Your task to perform on an android device: change the upload size in google photos Image 0: 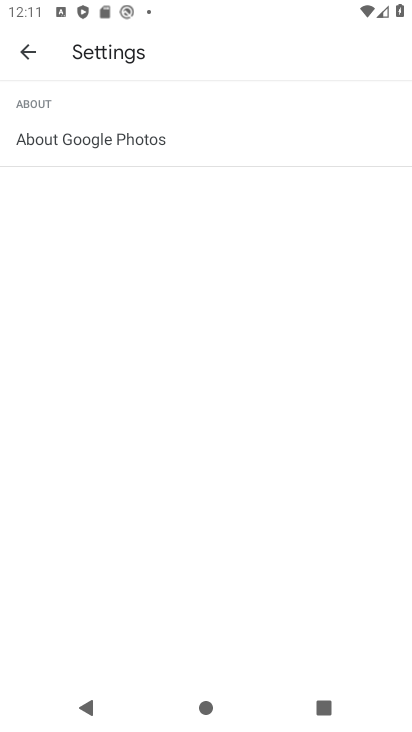
Step 0: click (27, 54)
Your task to perform on an android device: change the upload size in google photos Image 1: 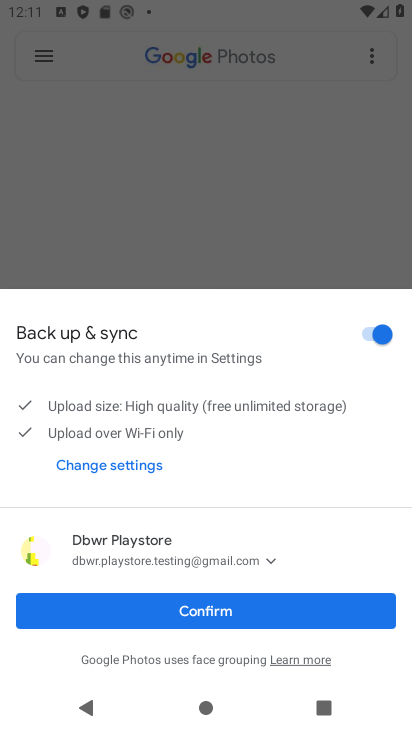
Step 1: click (372, 59)
Your task to perform on an android device: change the upload size in google photos Image 2: 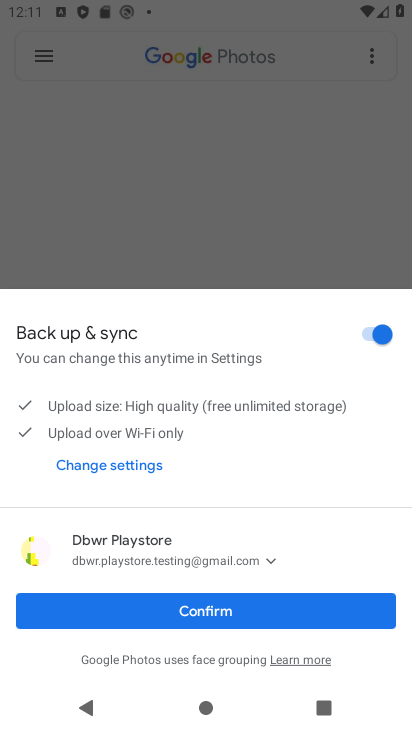
Step 2: click (253, 603)
Your task to perform on an android device: change the upload size in google photos Image 3: 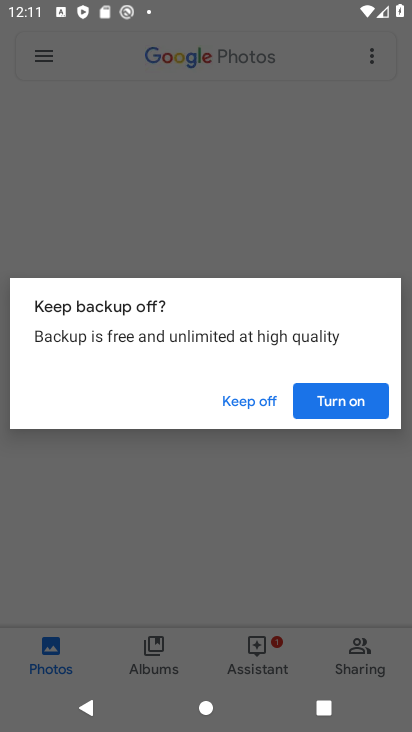
Step 3: click (321, 408)
Your task to perform on an android device: change the upload size in google photos Image 4: 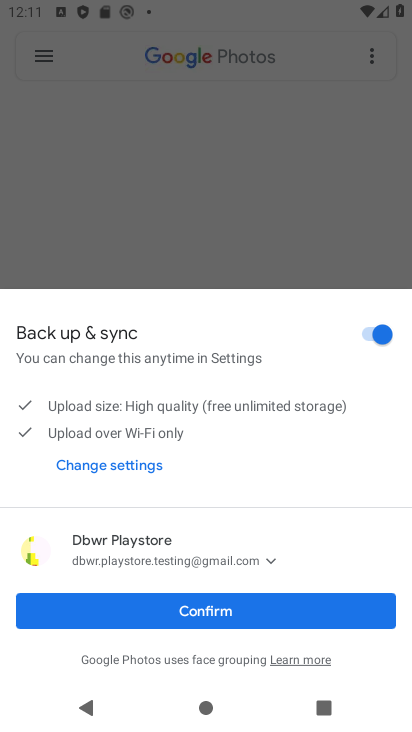
Step 4: click (232, 610)
Your task to perform on an android device: change the upload size in google photos Image 5: 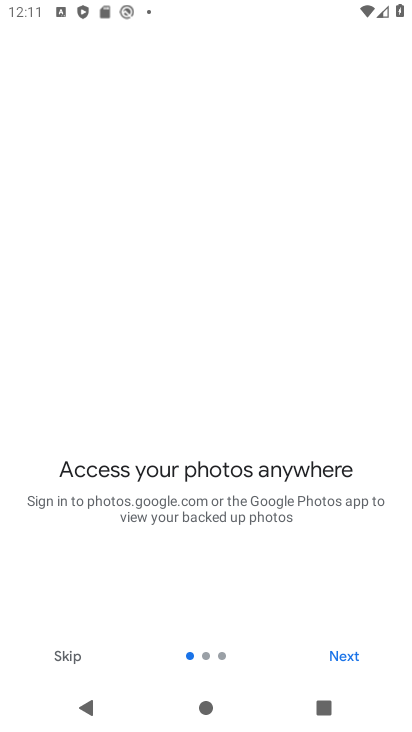
Step 5: click (340, 656)
Your task to perform on an android device: change the upload size in google photos Image 6: 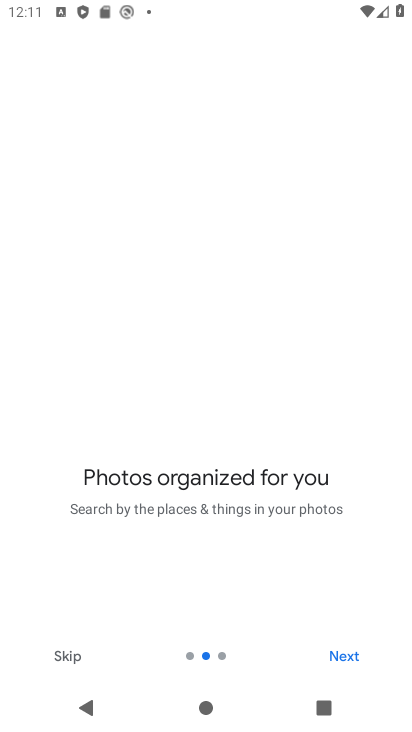
Step 6: click (340, 655)
Your task to perform on an android device: change the upload size in google photos Image 7: 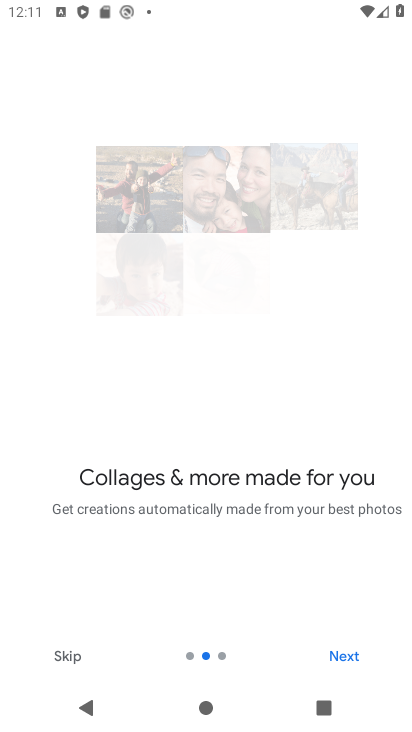
Step 7: click (340, 655)
Your task to perform on an android device: change the upload size in google photos Image 8: 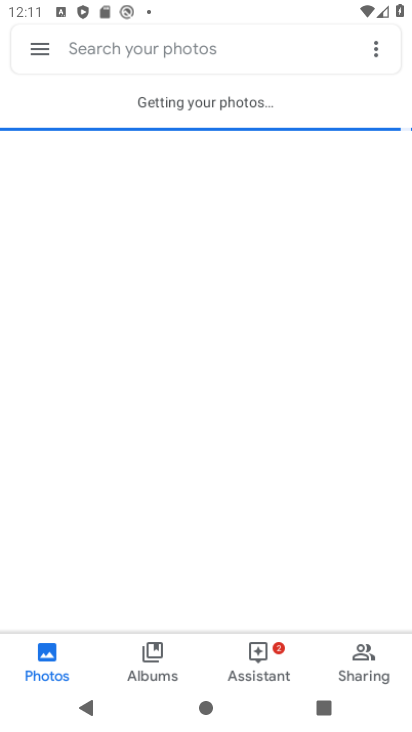
Step 8: click (335, 654)
Your task to perform on an android device: change the upload size in google photos Image 9: 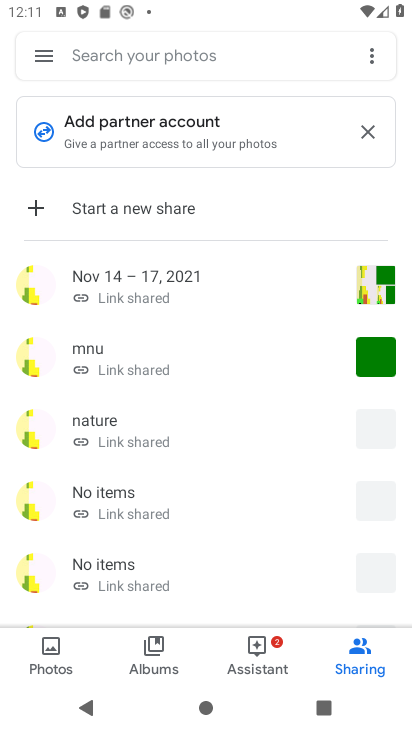
Step 9: click (47, 57)
Your task to perform on an android device: change the upload size in google photos Image 10: 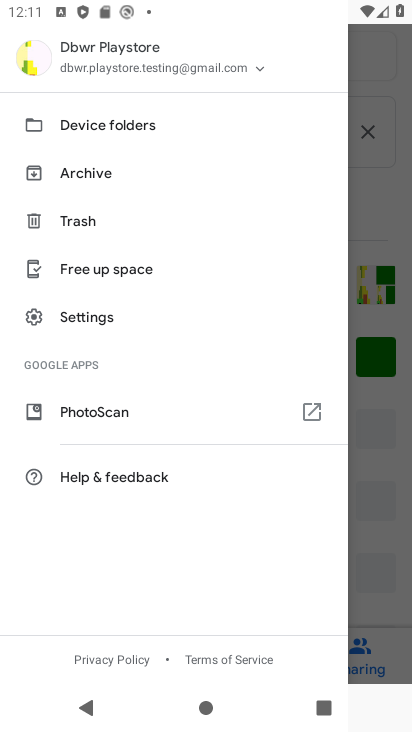
Step 10: click (127, 309)
Your task to perform on an android device: change the upload size in google photos Image 11: 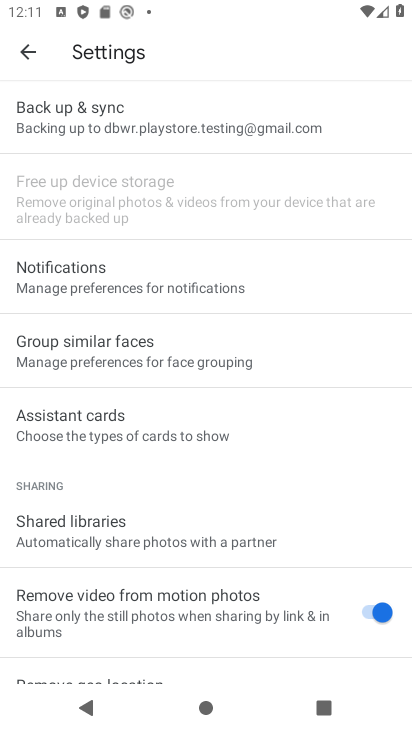
Step 11: drag from (160, 452) to (180, 202)
Your task to perform on an android device: change the upload size in google photos Image 12: 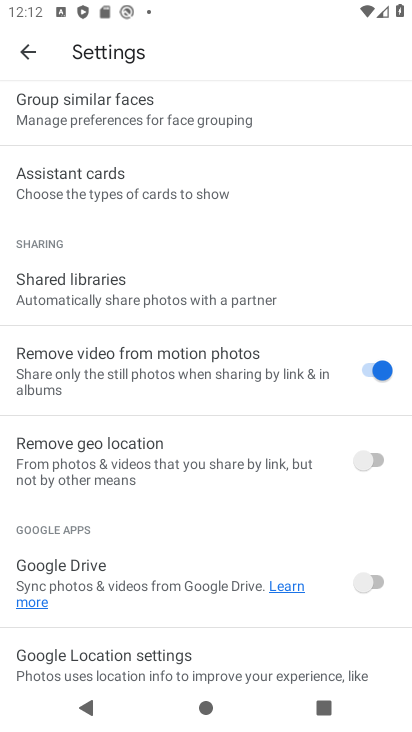
Step 12: drag from (168, 529) to (171, 290)
Your task to perform on an android device: change the upload size in google photos Image 13: 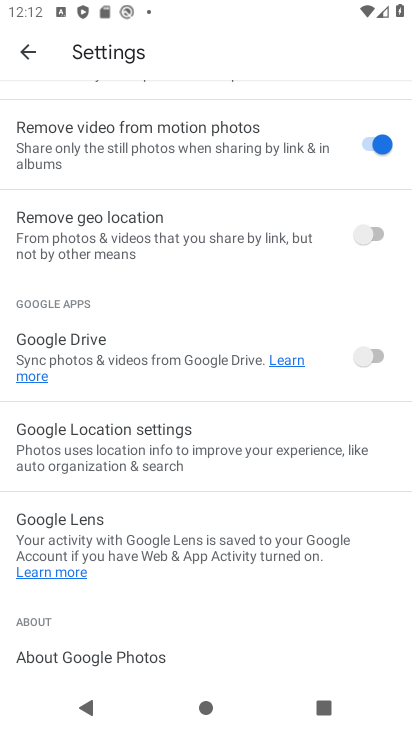
Step 13: drag from (211, 527) to (219, 150)
Your task to perform on an android device: change the upload size in google photos Image 14: 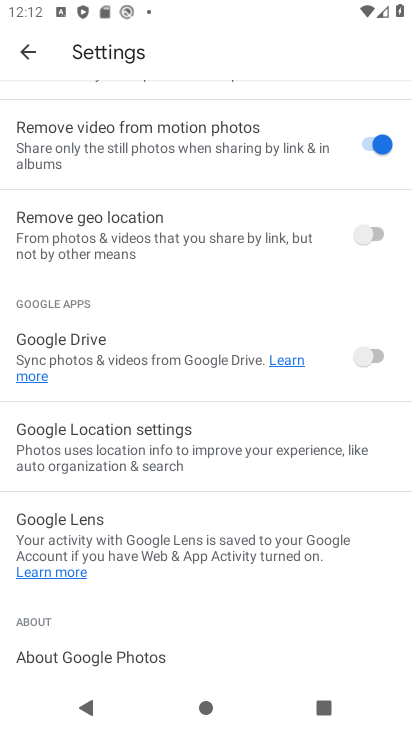
Step 14: drag from (173, 523) to (224, 213)
Your task to perform on an android device: change the upload size in google photos Image 15: 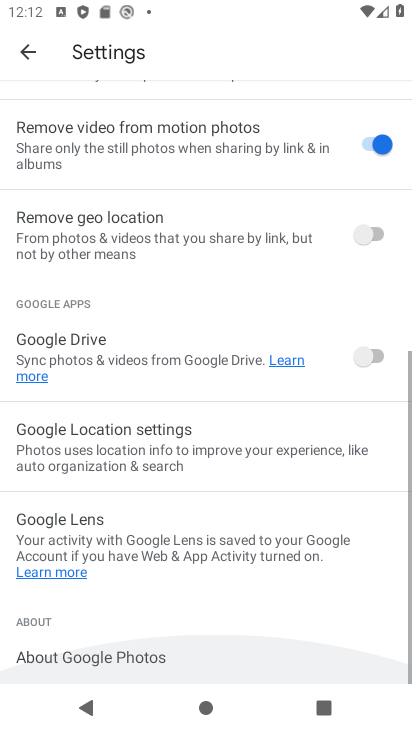
Step 15: drag from (226, 226) to (195, 513)
Your task to perform on an android device: change the upload size in google photos Image 16: 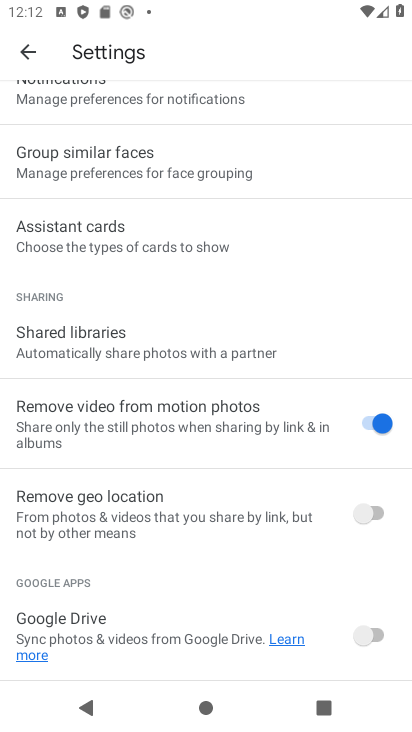
Step 16: drag from (208, 271) to (216, 580)
Your task to perform on an android device: change the upload size in google photos Image 17: 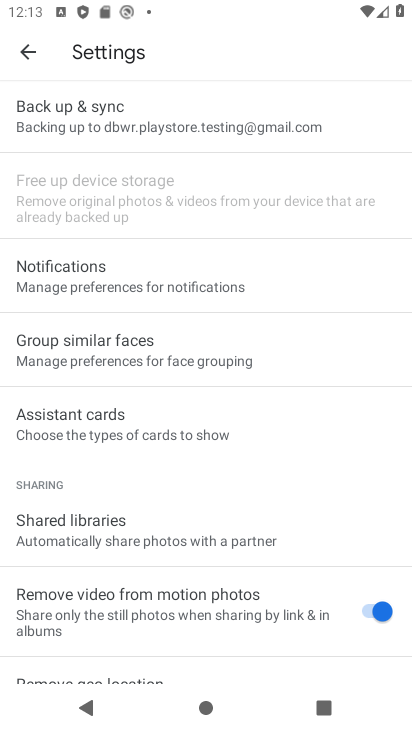
Step 17: drag from (171, 506) to (203, 257)
Your task to perform on an android device: change the upload size in google photos Image 18: 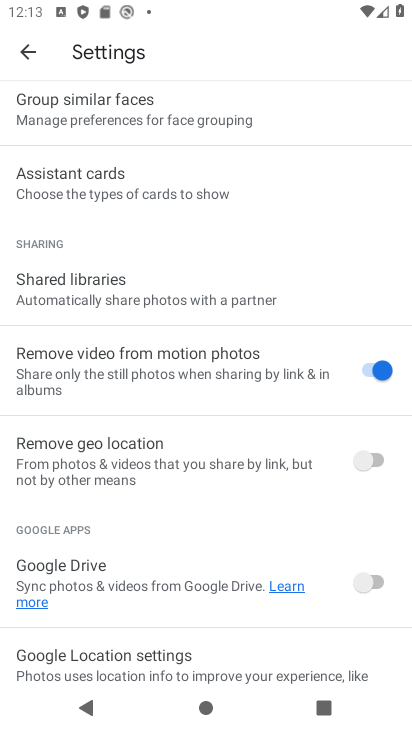
Step 18: drag from (158, 540) to (207, 227)
Your task to perform on an android device: change the upload size in google photos Image 19: 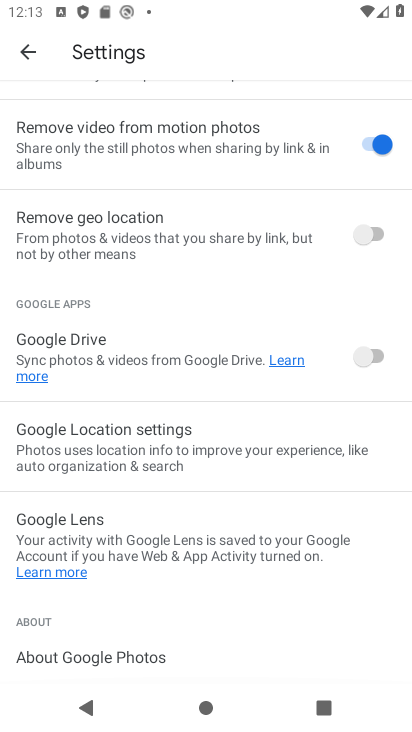
Step 19: drag from (193, 495) to (229, 194)
Your task to perform on an android device: change the upload size in google photos Image 20: 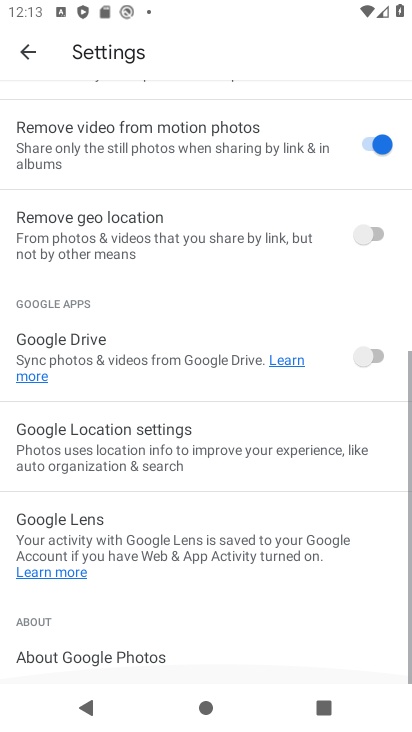
Step 20: drag from (230, 218) to (211, 553)
Your task to perform on an android device: change the upload size in google photos Image 21: 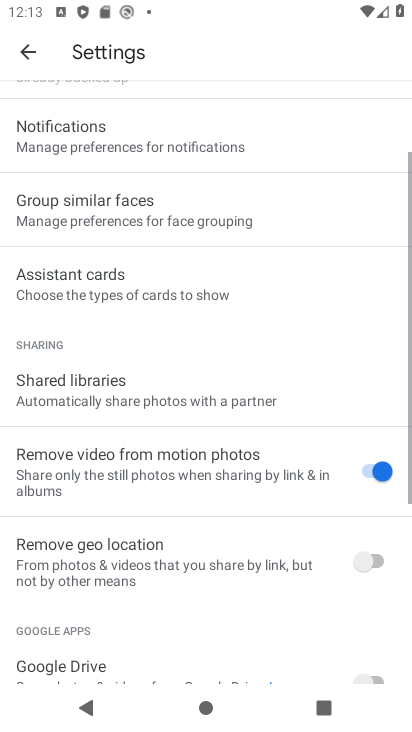
Step 21: drag from (241, 306) to (192, 678)
Your task to perform on an android device: change the upload size in google photos Image 22: 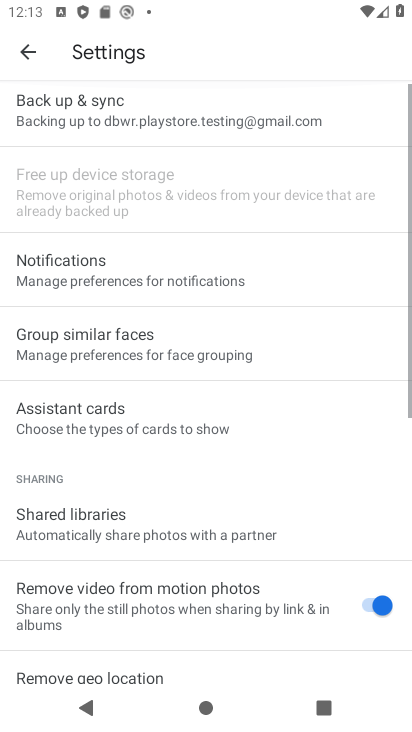
Step 22: drag from (214, 384) to (174, 553)
Your task to perform on an android device: change the upload size in google photos Image 23: 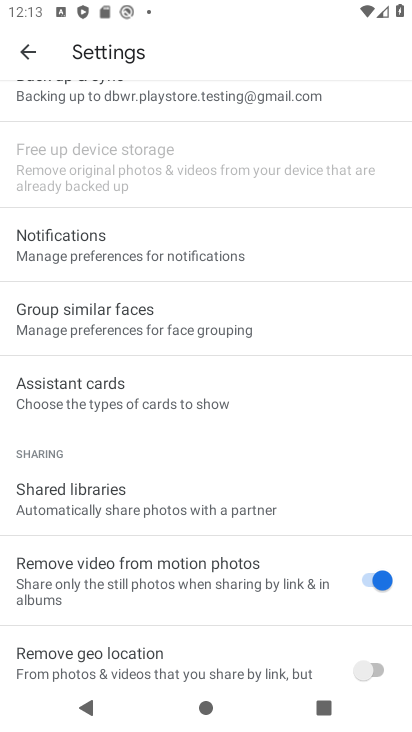
Step 23: drag from (146, 166) to (155, 550)
Your task to perform on an android device: change the upload size in google photos Image 24: 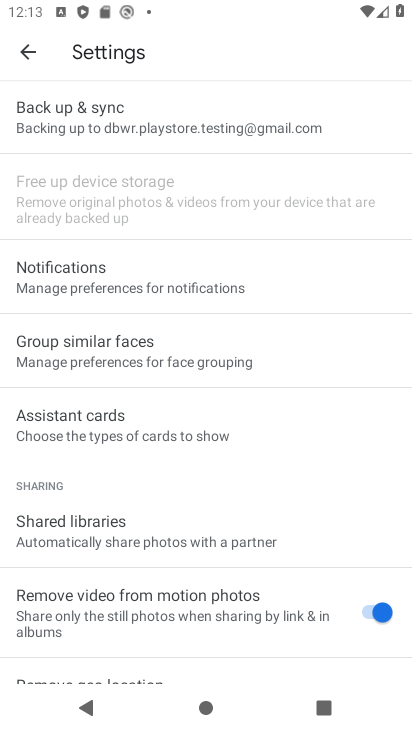
Step 24: click (180, 110)
Your task to perform on an android device: change the upload size in google photos Image 25: 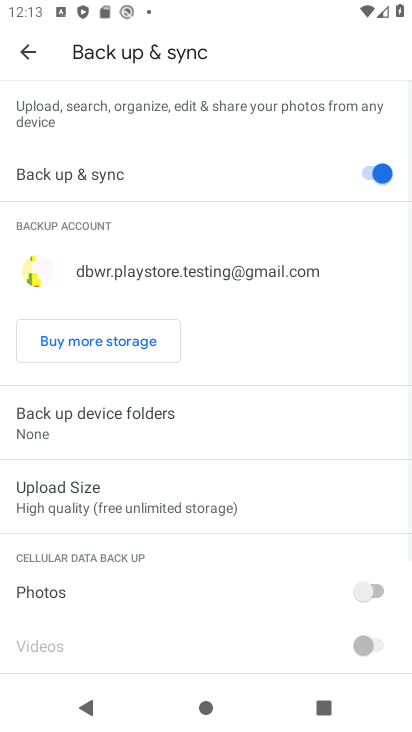
Step 25: drag from (192, 489) to (192, 341)
Your task to perform on an android device: change the upload size in google photos Image 26: 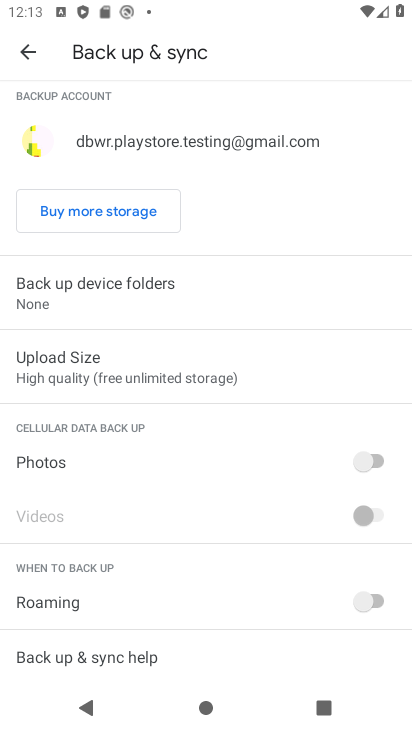
Step 26: click (162, 357)
Your task to perform on an android device: change the upload size in google photos Image 27: 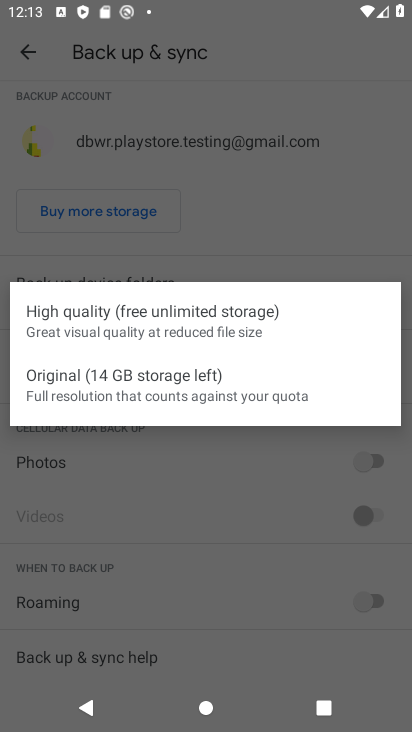
Step 27: click (157, 381)
Your task to perform on an android device: change the upload size in google photos Image 28: 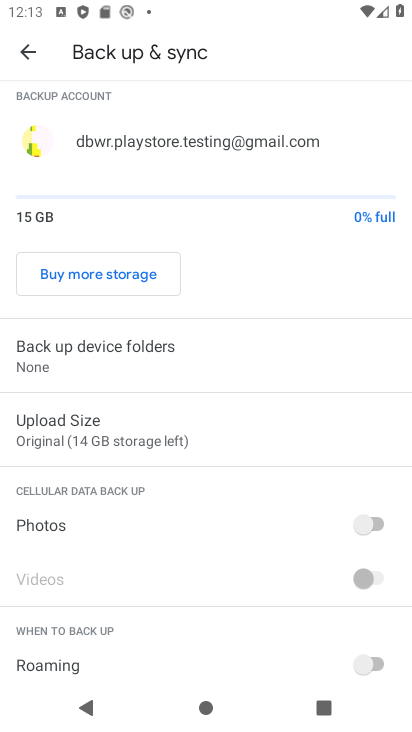
Step 28: task complete